Your task to perform on an android device: turn on bluetooth scan Image 0: 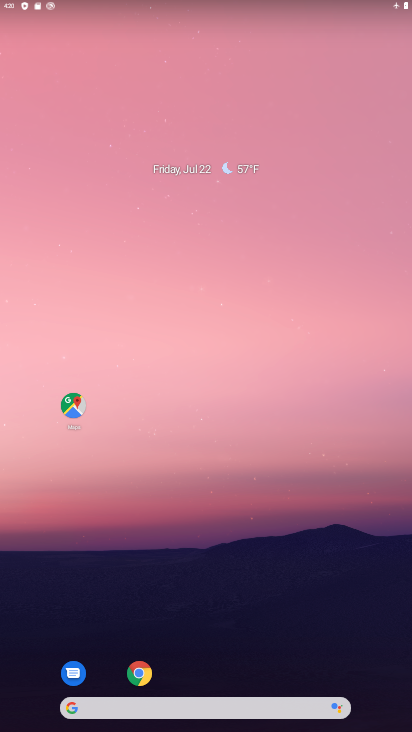
Step 0: press home button
Your task to perform on an android device: turn on bluetooth scan Image 1: 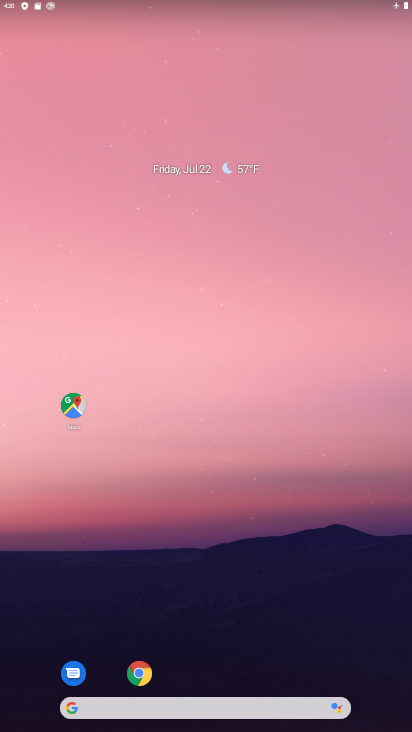
Step 1: drag from (255, 624) to (251, 191)
Your task to perform on an android device: turn on bluetooth scan Image 2: 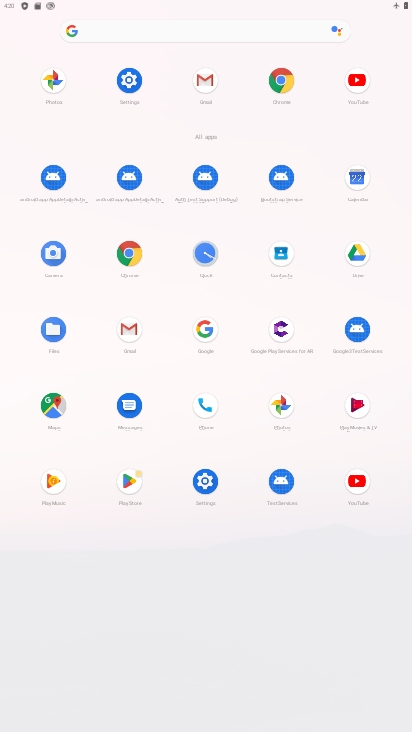
Step 2: click (205, 477)
Your task to perform on an android device: turn on bluetooth scan Image 3: 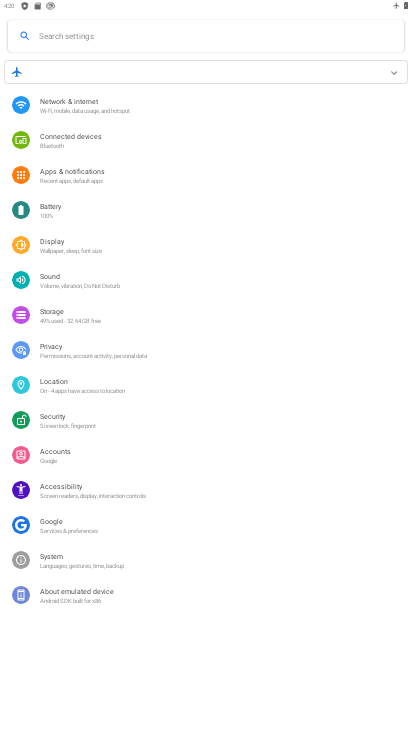
Step 3: click (67, 393)
Your task to perform on an android device: turn on bluetooth scan Image 4: 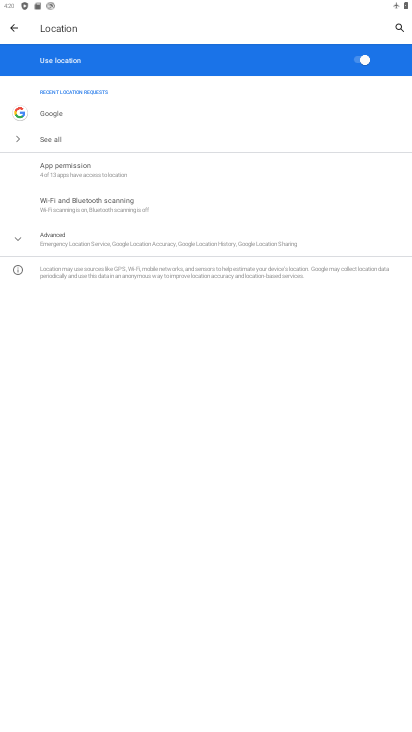
Step 4: click (116, 204)
Your task to perform on an android device: turn on bluetooth scan Image 5: 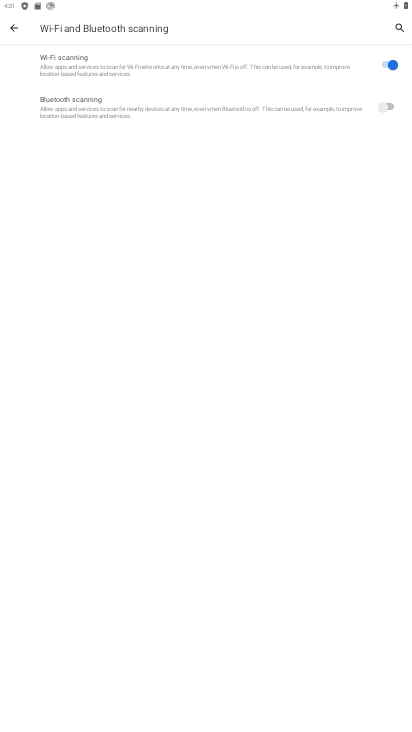
Step 5: click (385, 104)
Your task to perform on an android device: turn on bluetooth scan Image 6: 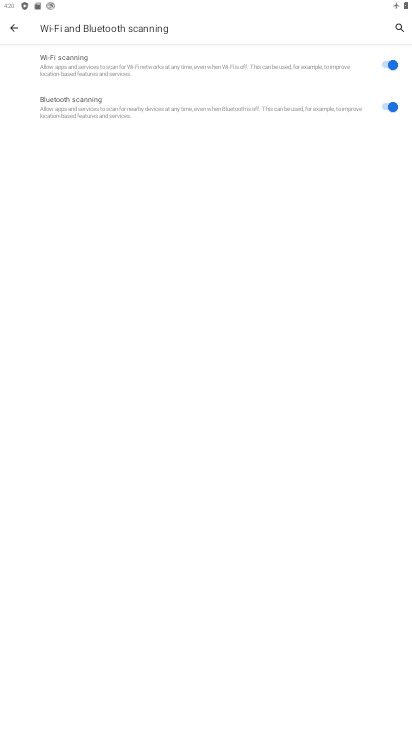
Step 6: task complete